Your task to perform on an android device: Show me productivity apps on the Play Store Image 0: 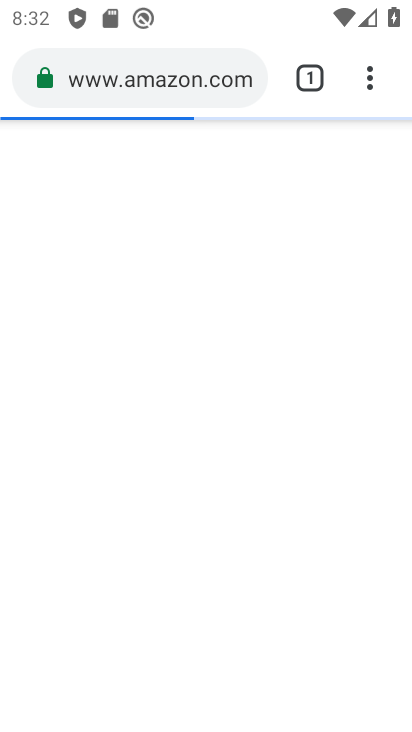
Step 0: press home button
Your task to perform on an android device: Show me productivity apps on the Play Store Image 1: 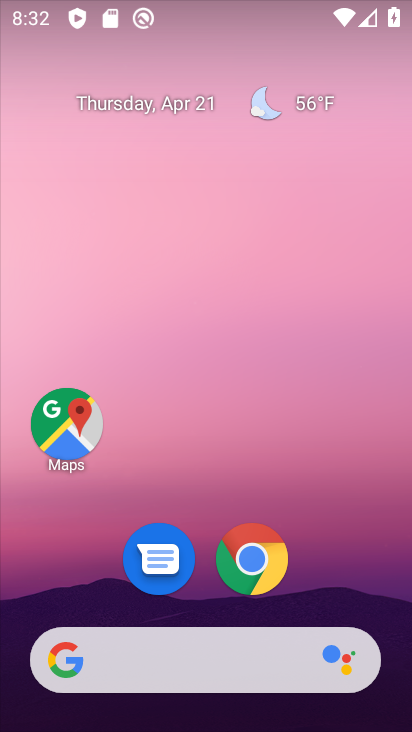
Step 1: drag from (324, 596) to (312, 170)
Your task to perform on an android device: Show me productivity apps on the Play Store Image 2: 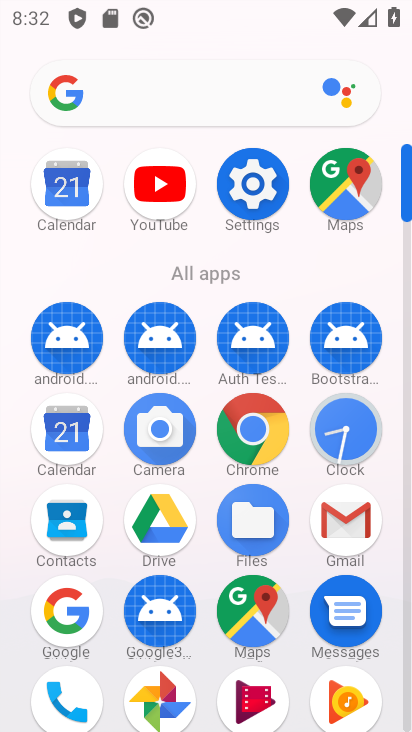
Step 2: drag from (208, 664) to (202, 291)
Your task to perform on an android device: Show me productivity apps on the Play Store Image 3: 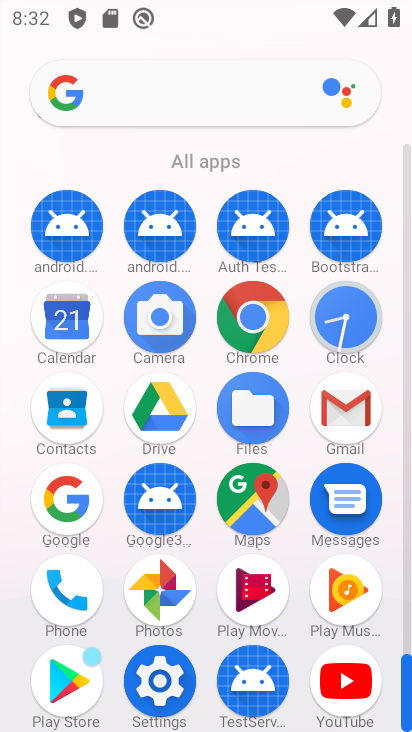
Step 3: drag from (214, 477) to (207, 274)
Your task to perform on an android device: Show me productivity apps on the Play Store Image 4: 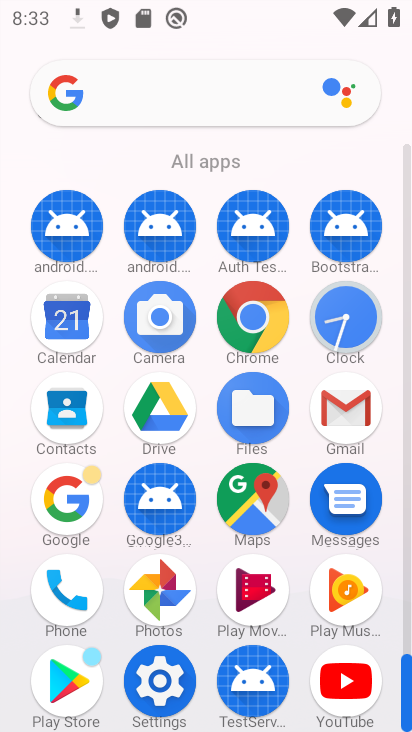
Step 4: click (80, 663)
Your task to perform on an android device: Show me productivity apps on the Play Store Image 5: 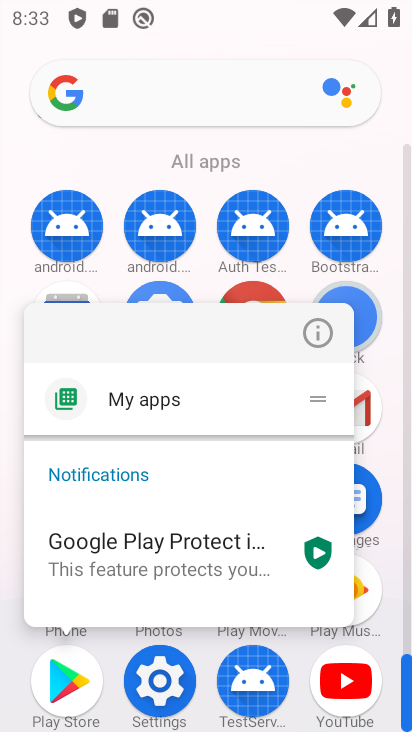
Step 5: click (67, 678)
Your task to perform on an android device: Show me productivity apps on the Play Store Image 6: 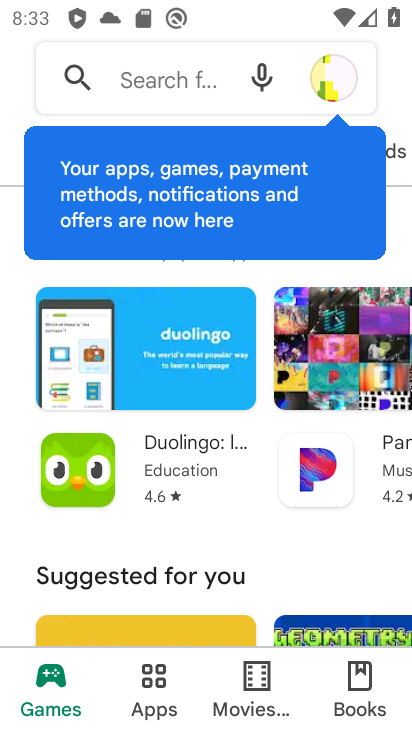
Step 6: click (158, 716)
Your task to perform on an android device: Show me productivity apps on the Play Store Image 7: 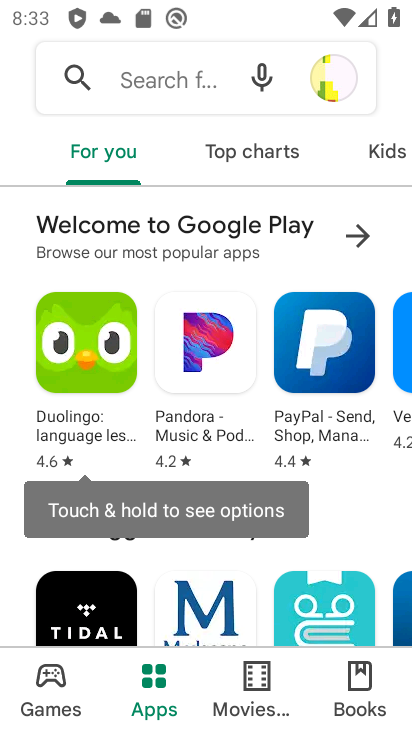
Step 7: drag from (218, 147) to (89, 146)
Your task to perform on an android device: Show me productivity apps on the Play Store Image 8: 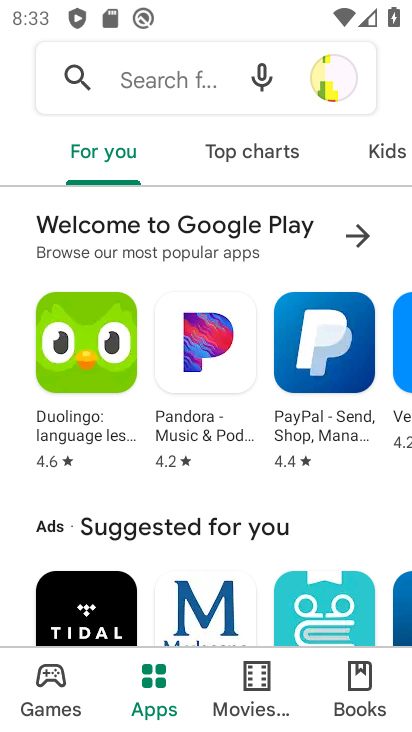
Step 8: drag from (381, 159) to (175, 157)
Your task to perform on an android device: Show me productivity apps on the Play Store Image 9: 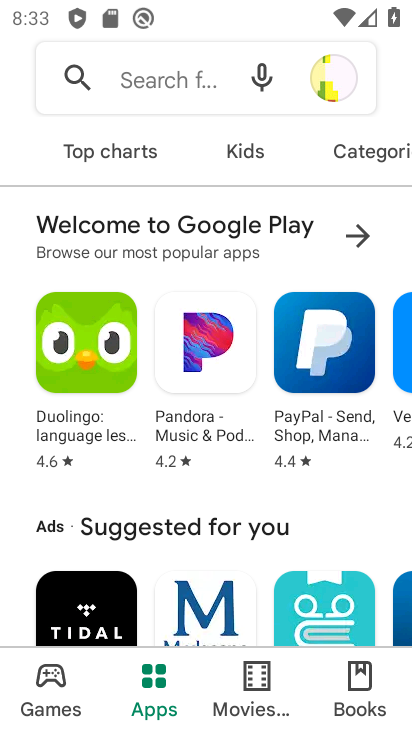
Step 9: click (360, 156)
Your task to perform on an android device: Show me productivity apps on the Play Store Image 10: 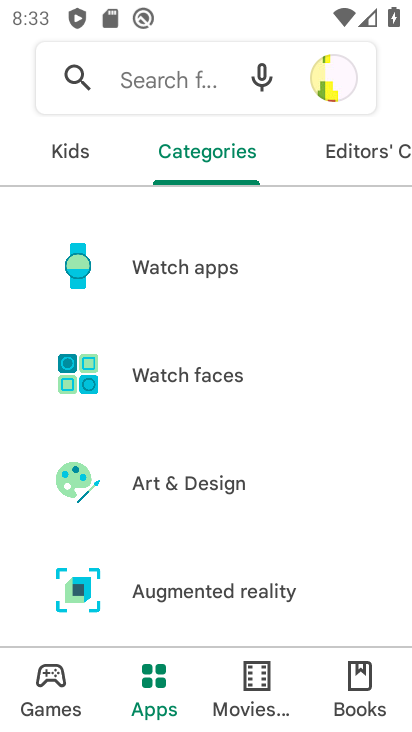
Step 10: drag from (258, 522) to (290, 257)
Your task to perform on an android device: Show me productivity apps on the Play Store Image 11: 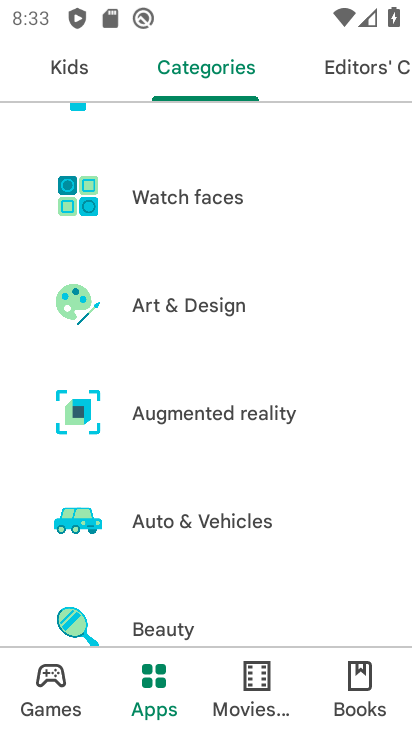
Step 11: drag from (237, 511) to (287, 242)
Your task to perform on an android device: Show me productivity apps on the Play Store Image 12: 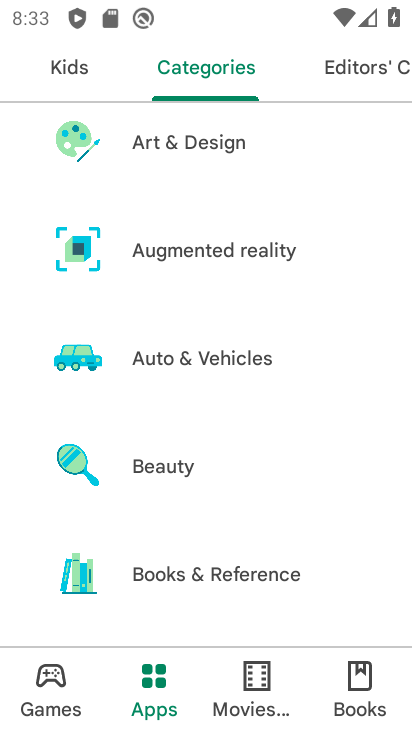
Step 12: drag from (297, 610) to (288, 201)
Your task to perform on an android device: Show me productivity apps on the Play Store Image 13: 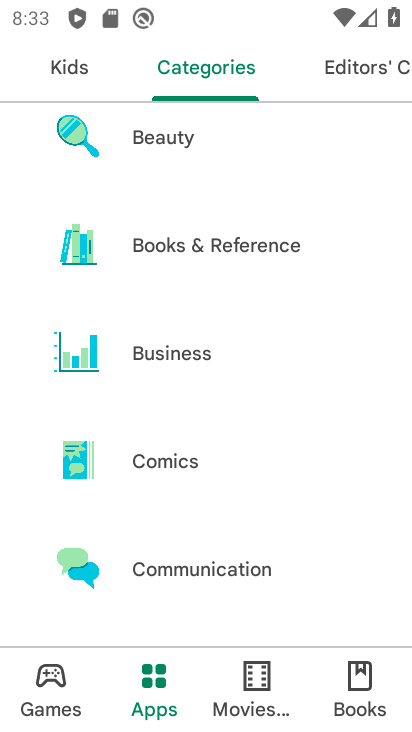
Step 13: drag from (288, 539) to (296, 287)
Your task to perform on an android device: Show me productivity apps on the Play Store Image 14: 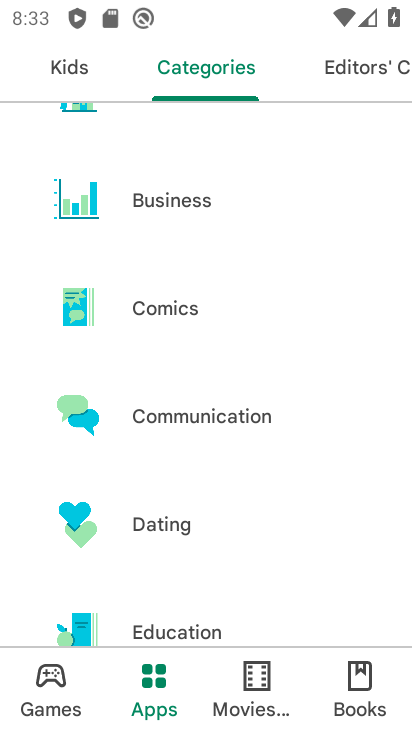
Step 14: drag from (247, 605) to (209, 327)
Your task to perform on an android device: Show me productivity apps on the Play Store Image 15: 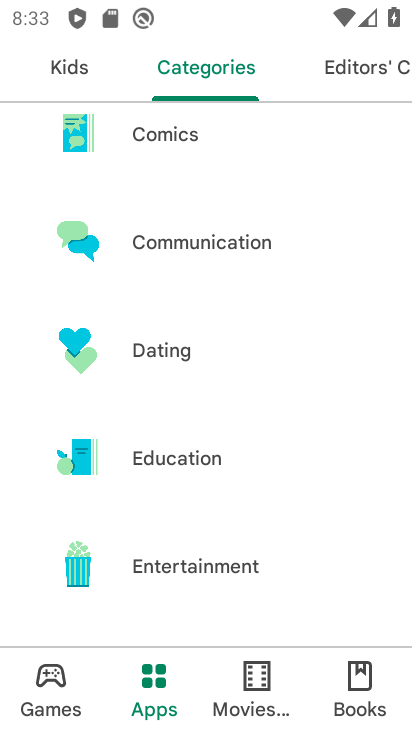
Step 15: drag from (236, 582) to (248, 298)
Your task to perform on an android device: Show me productivity apps on the Play Store Image 16: 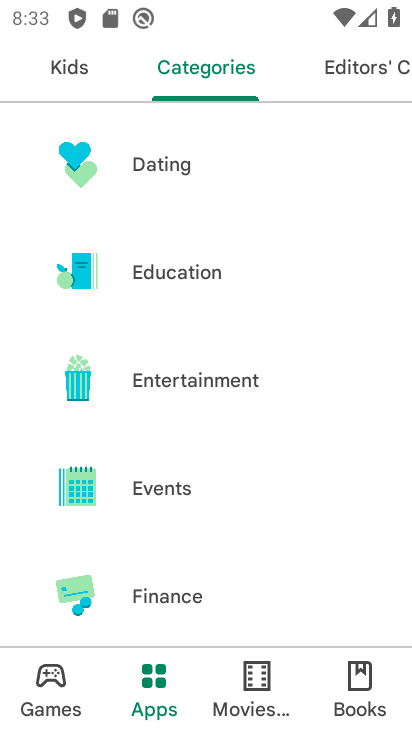
Step 16: drag from (307, 519) to (325, 294)
Your task to perform on an android device: Show me productivity apps on the Play Store Image 17: 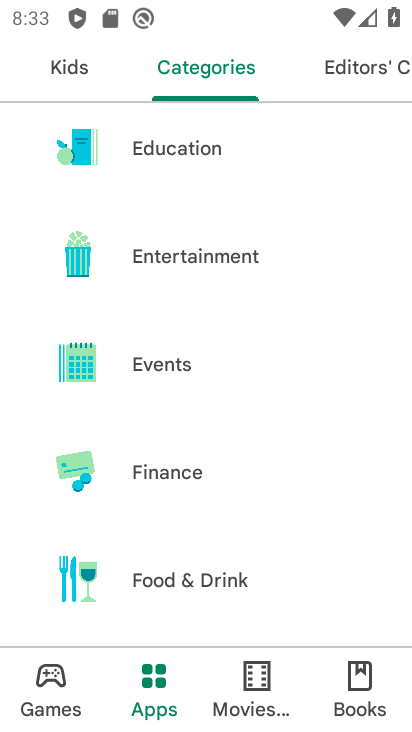
Step 17: drag from (258, 531) to (246, 323)
Your task to perform on an android device: Show me productivity apps on the Play Store Image 18: 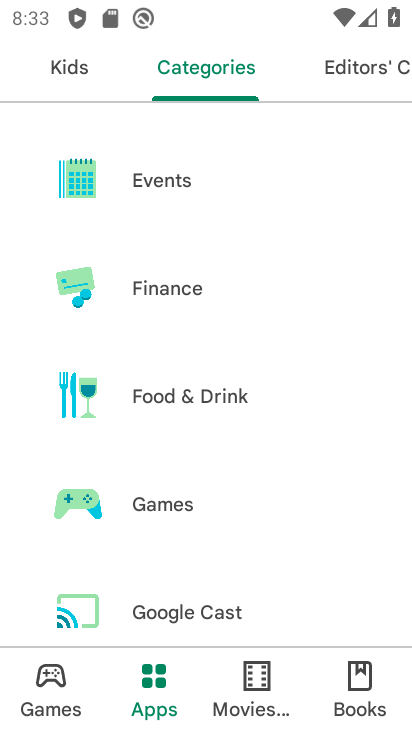
Step 18: drag from (271, 546) to (282, 225)
Your task to perform on an android device: Show me productivity apps on the Play Store Image 19: 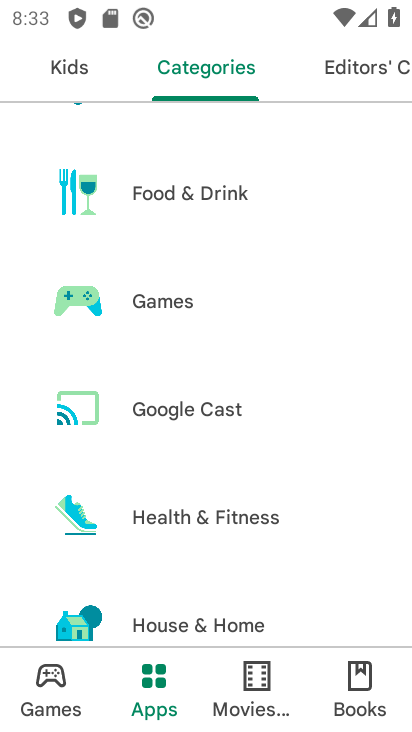
Step 19: drag from (268, 538) to (235, 200)
Your task to perform on an android device: Show me productivity apps on the Play Store Image 20: 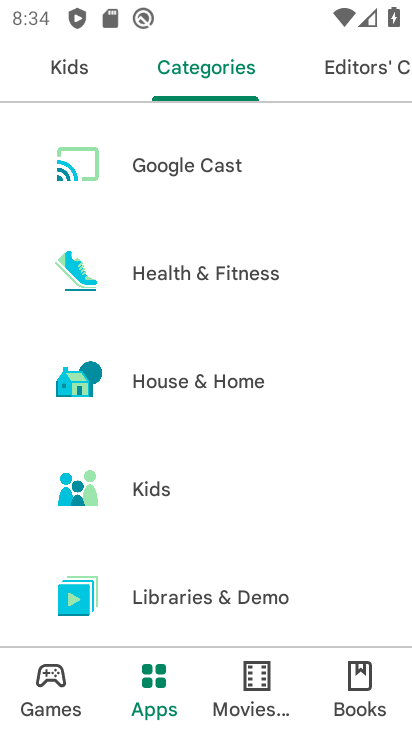
Step 20: drag from (292, 438) to (286, 305)
Your task to perform on an android device: Show me productivity apps on the Play Store Image 21: 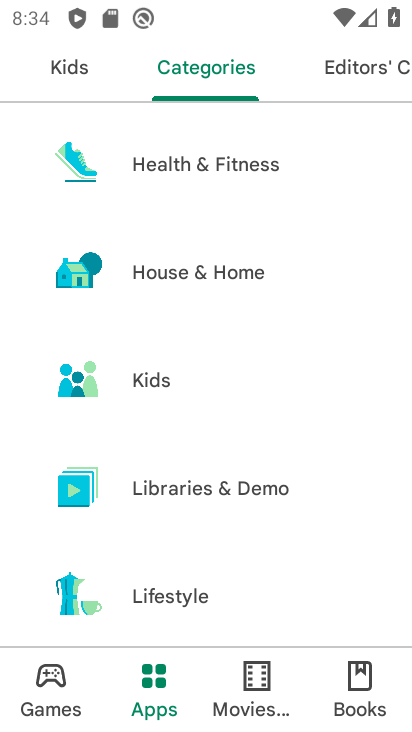
Step 21: drag from (189, 516) to (175, 251)
Your task to perform on an android device: Show me productivity apps on the Play Store Image 22: 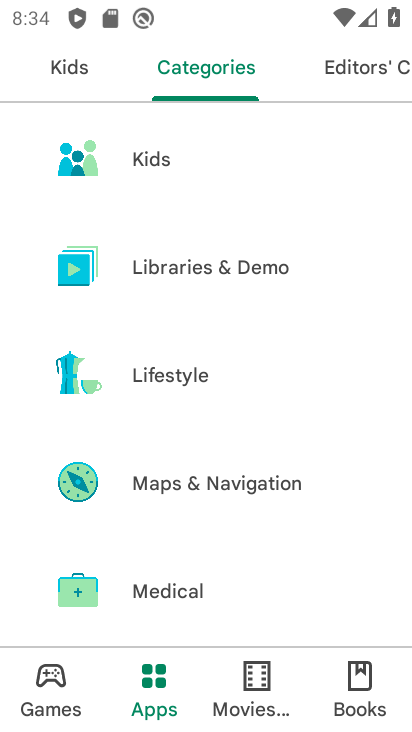
Step 22: drag from (233, 507) to (219, 286)
Your task to perform on an android device: Show me productivity apps on the Play Store Image 23: 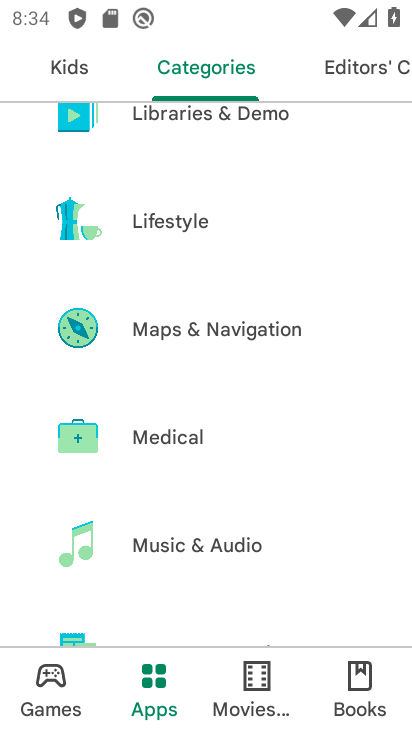
Step 23: drag from (297, 350) to (278, 181)
Your task to perform on an android device: Show me productivity apps on the Play Store Image 24: 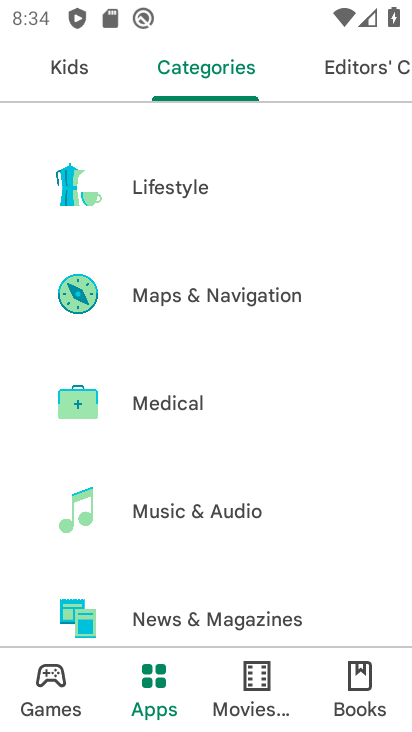
Step 24: drag from (202, 565) to (215, 256)
Your task to perform on an android device: Show me productivity apps on the Play Store Image 25: 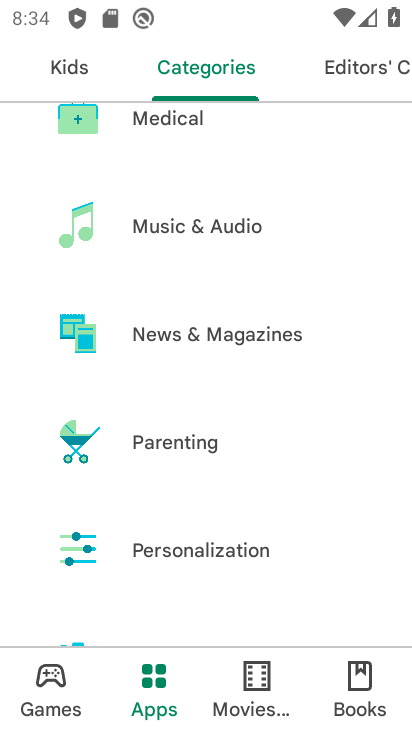
Step 25: drag from (280, 577) to (275, 352)
Your task to perform on an android device: Show me productivity apps on the Play Store Image 26: 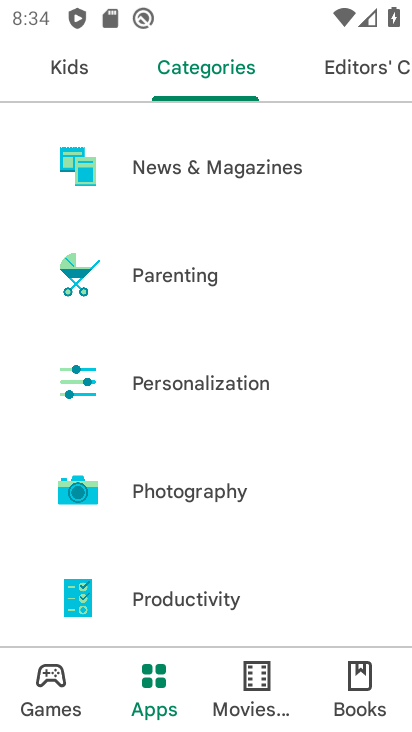
Step 26: click (236, 594)
Your task to perform on an android device: Show me productivity apps on the Play Store Image 27: 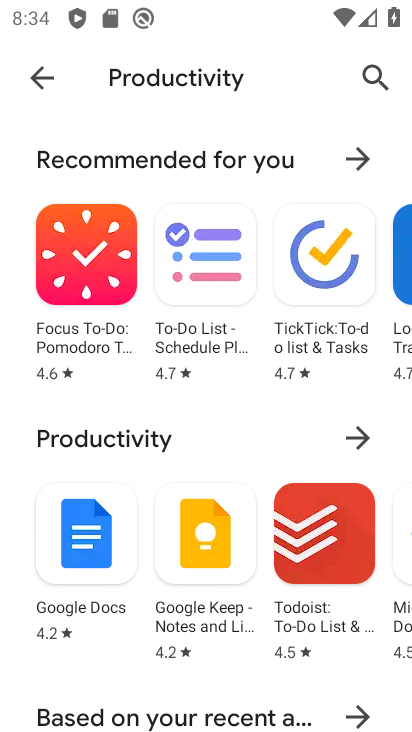
Step 27: task complete